Your task to perform on an android device: When is my next meeting? Image 0: 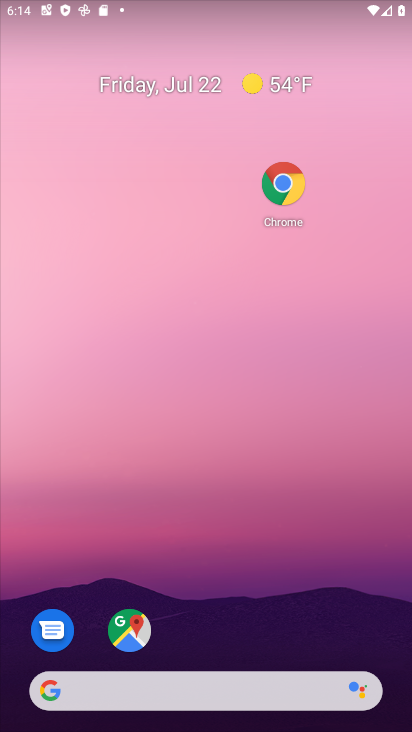
Step 0: drag from (217, 613) to (213, 77)
Your task to perform on an android device: When is my next meeting? Image 1: 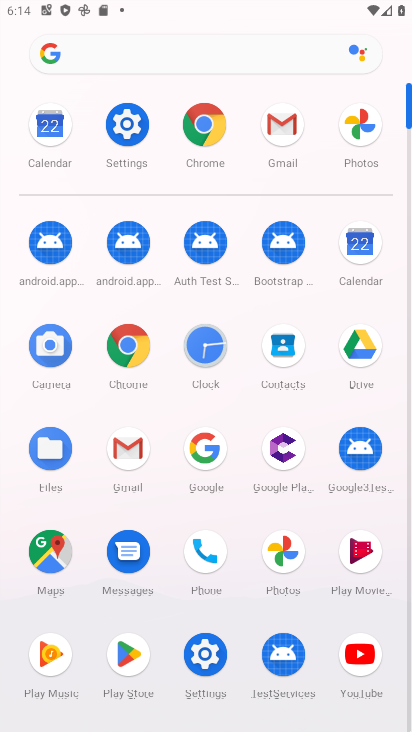
Step 1: click (358, 273)
Your task to perform on an android device: When is my next meeting? Image 2: 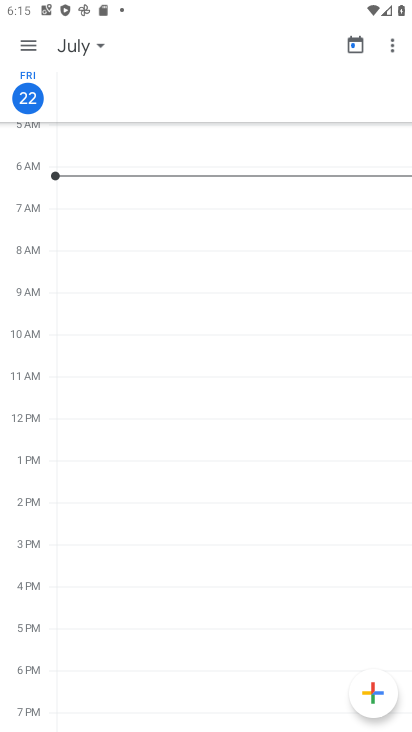
Step 2: click (32, 47)
Your task to perform on an android device: When is my next meeting? Image 3: 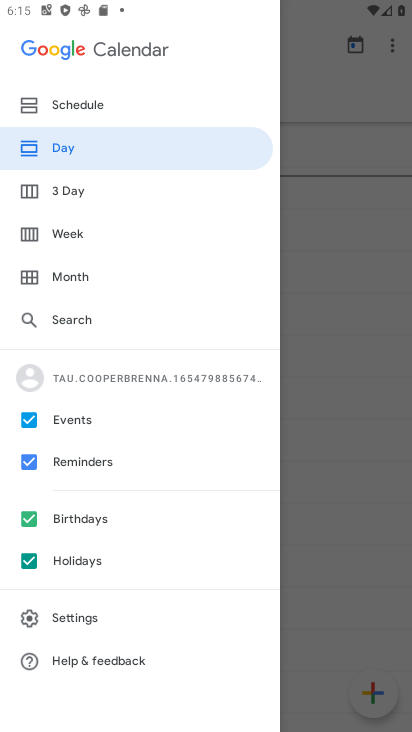
Step 3: click (99, 101)
Your task to perform on an android device: When is my next meeting? Image 4: 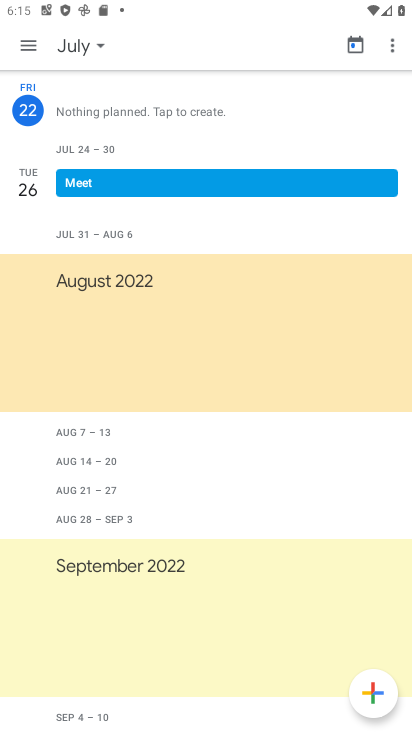
Step 4: task complete